Your task to perform on an android device: set default search engine in the chrome app Image 0: 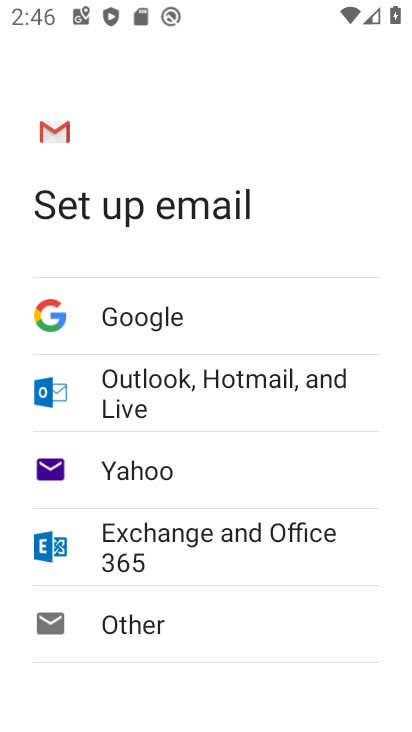
Step 0: press home button
Your task to perform on an android device: set default search engine in the chrome app Image 1: 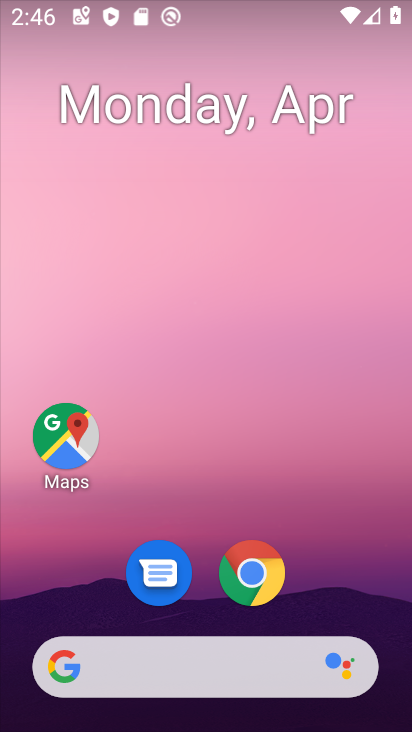
Step 1: drag from (360, 583) to (335, 59)
Your task to perform on an android device: set default search engine in the chrome app Image 2: 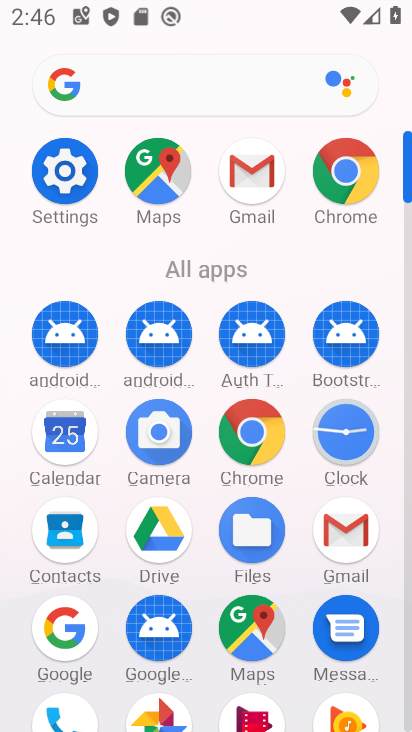
Step 2: click (363, 179)
Your task to perform on an android device: set default search engine in the chrome app Image 3: 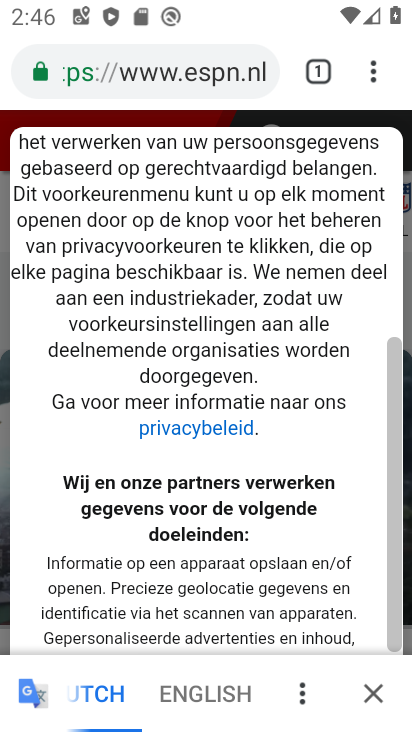
Step 3: click (374, 75)
Your task to perform on an android device: set default search engine in the chrome app Image 4: 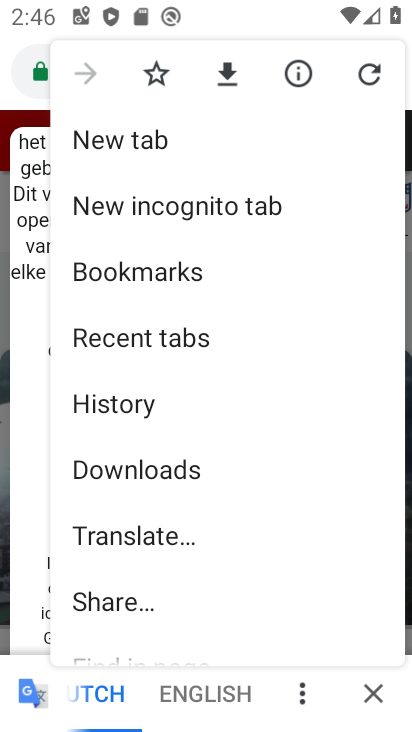
Step 4: drag from (320, 566) to (307, 410)
Your task to perform on an android device: set default search engine in the chrome app Image 5: 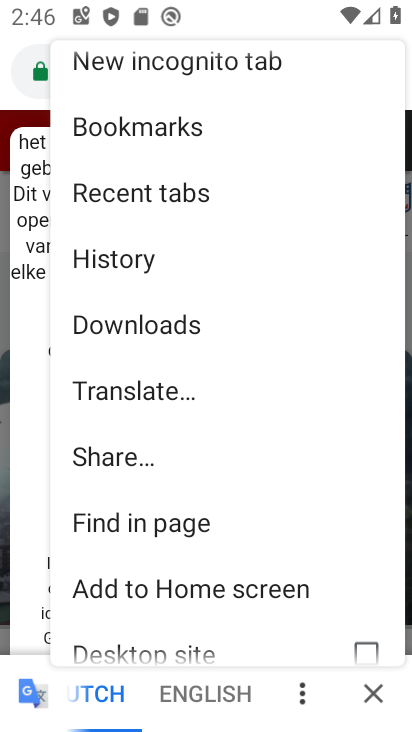
Step 5: drag from (340, 584) to (333, 385)
Your task to perform on an android device: set default search engine in the chrome app Image 6: 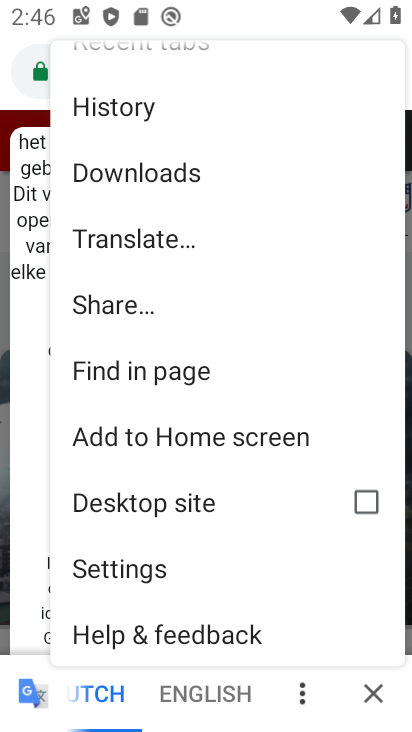
Step 6: click (163, 577)
Your task to perform on an android device: set default search engine in the chrome app Image 7: 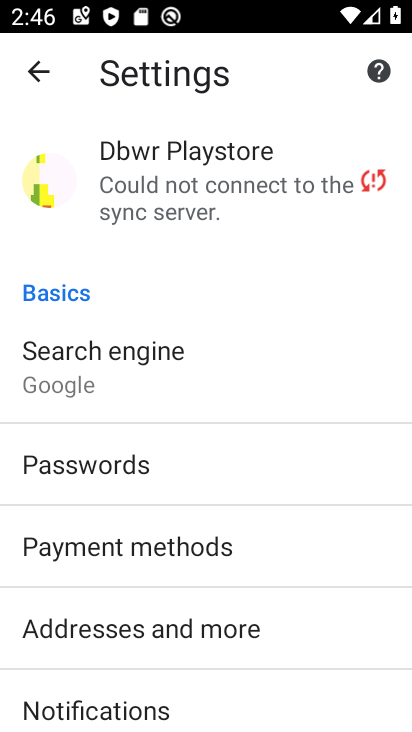
Step 7: drag from (339, 618) to (343, 487)
Your task to perform on an android device: set default search engine in the chrome app Image 8: 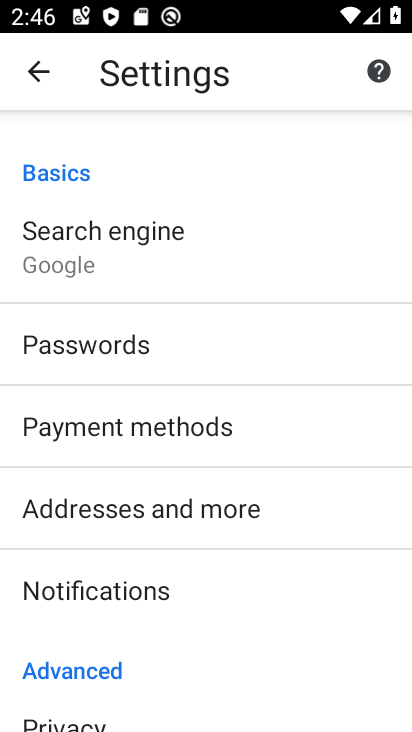
Step 8: drag from (314, 656) to (343, 459)
Your task to perform on an android device: set default search engine in the chrome app Image 9: 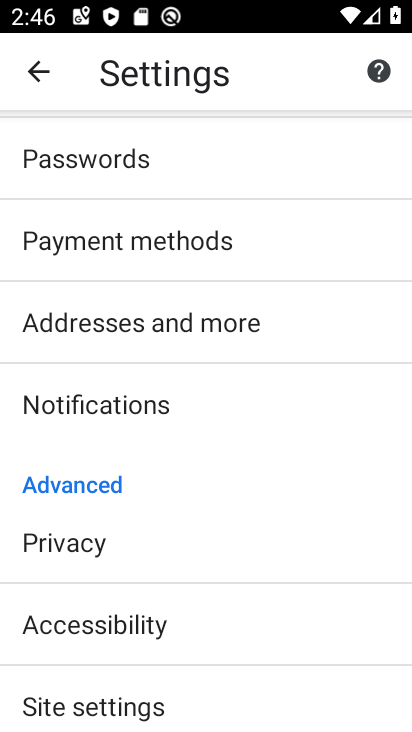
Step 9: drag from (331, 679) to (351, 476)
Your task to perform on an android device: set default search engine in the chrome app Image 10: 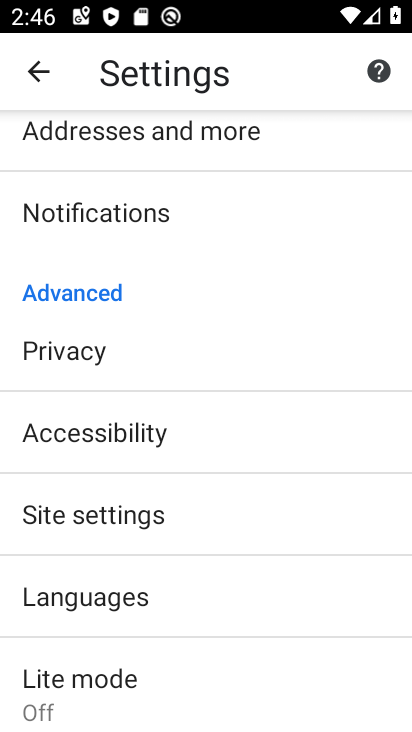
Step 10: drag from (348, 661) to (355, 413)
Your task to perform on an android device: set default search engine in the chrome app Image 11: 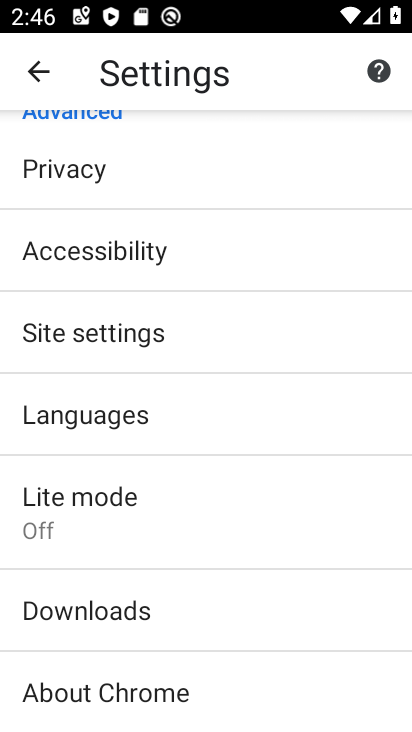
Step 11: drag from (280, 286) to (274, 510)
Your task to perform on an android device: set default search engine in the chrome app Image 12: 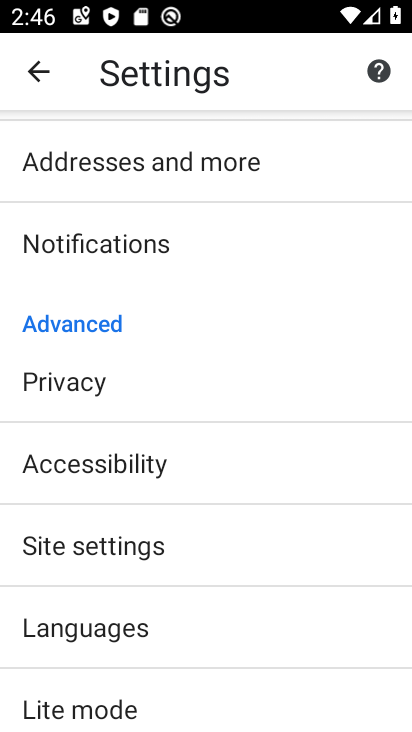
Step 12: drag from (292, 270) to (294, 461)
Your task to perform on an android device: set default search engine in the chrome app Image 13: 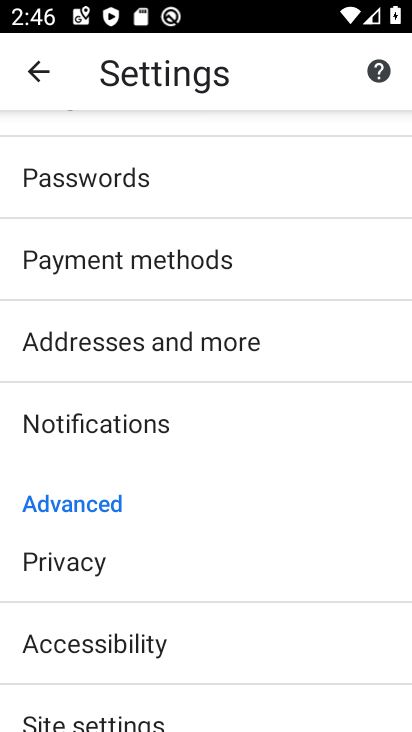
Step 13: drag from (310, 207) to (307, 391)
Your task to perform on an android device: set default search engine in the chrome app Image 14: 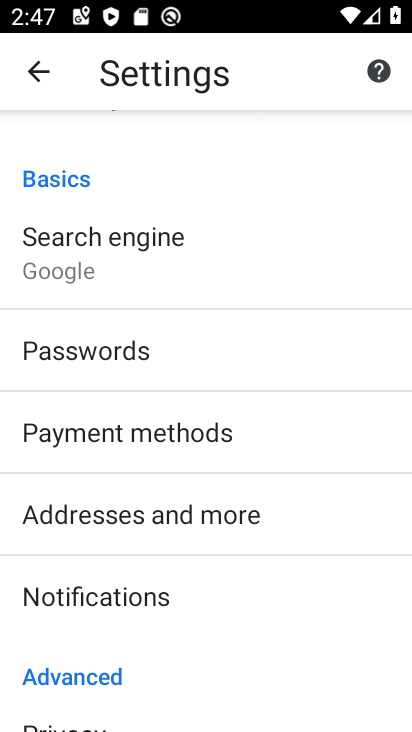
Step 14: click (78, 252)
Your task to perform on an android device: set default search engine in the chrome app Image 15: 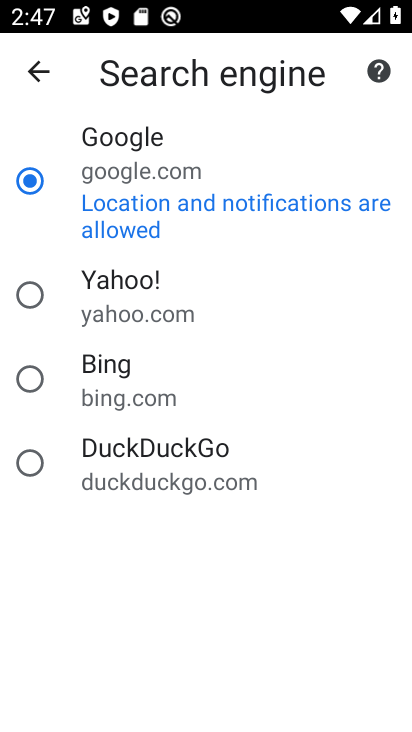
Step 15: click (139, 388)
Your task to perform on an android device: set default search engine in the chrome app Image 16: 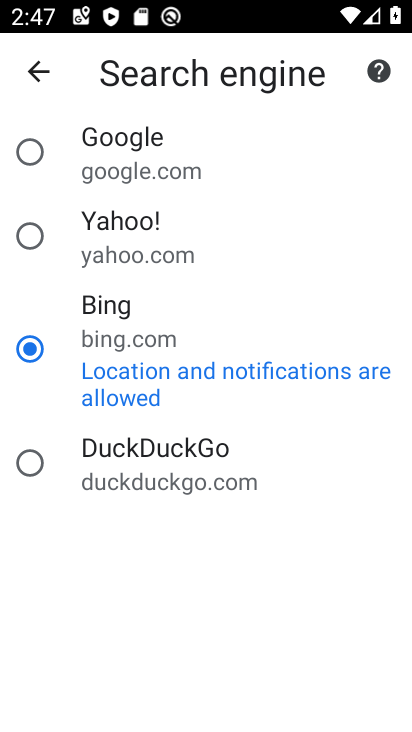
Step 16: task complete